Your task to perform on an android device: Is it going to rain this weekend? Image 0: 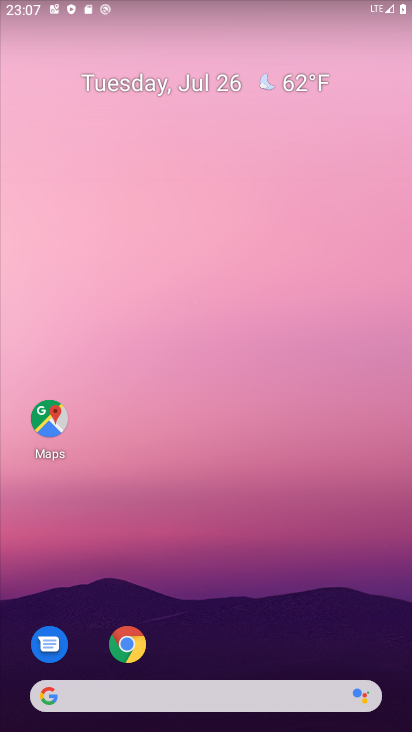
Step 0: click (213, 700)
Your task to perform on an android device: Is it going to rain this weekend? Image 1: 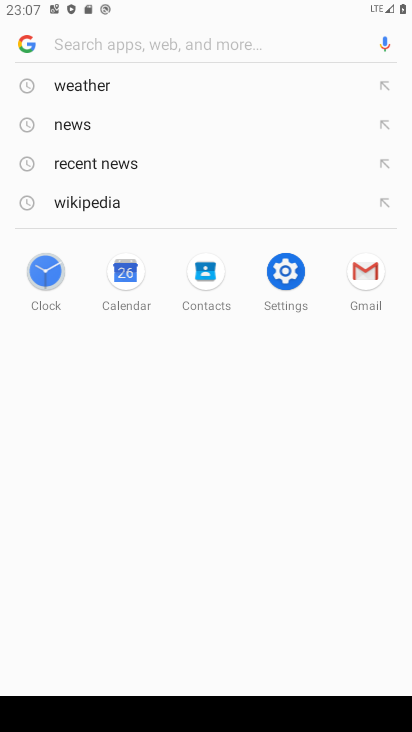
Step 1: click (76, 85)
Your task to perform on an android device: Is it going to rain this weekend? Image 2: 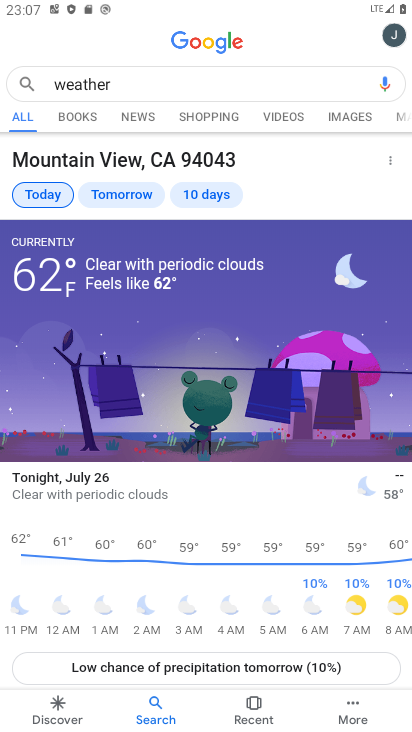
Step 2: click (227, 200)
Your task to perform on an android device: Is it going to rain this weekend? Image 3: 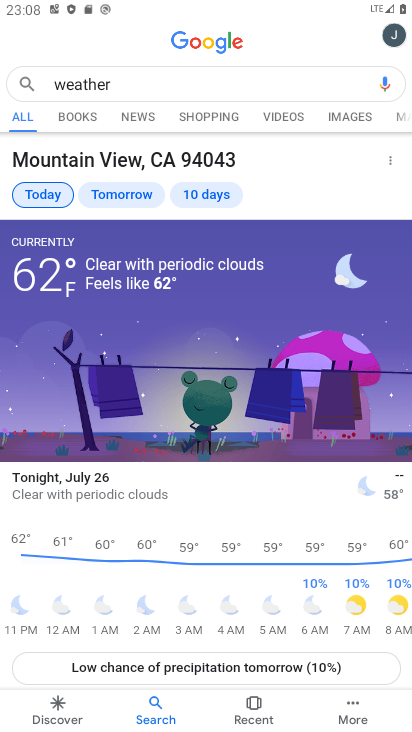
Step 3: click (210, 197)
Your task to perform on an android device: Is it going to rain this weekend? Image 4: 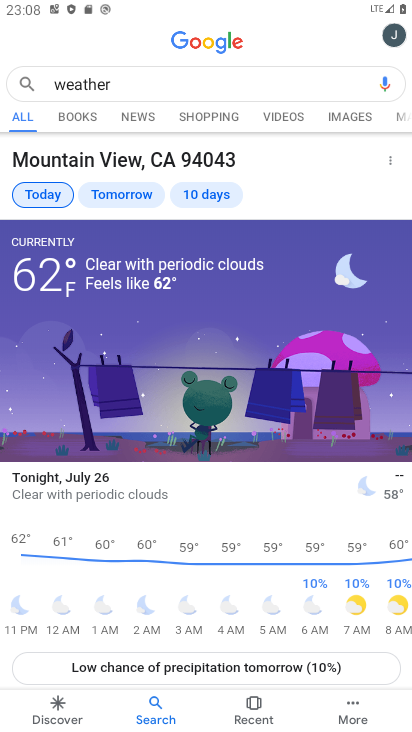
Step 4: drag from (216, 346) to (216, 223)
Your task to perform on an android device: Is it going to rain this weekend? Image 5: 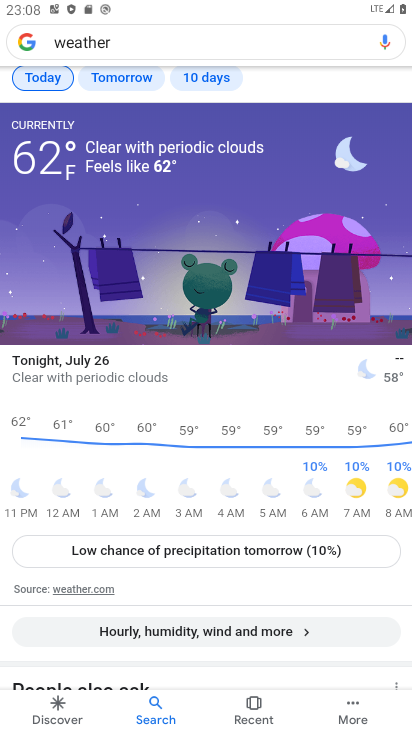
Step 5: drag from (204, 129) to (209, 301)
Your task to perform on an android device: Is it going to rain this weekend? Image 6: 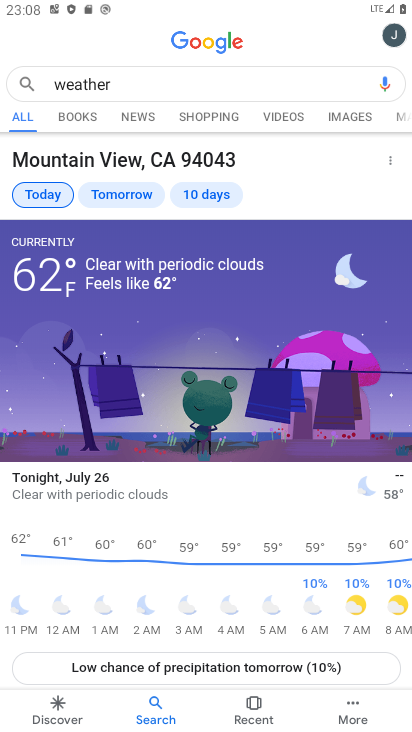
Step 6: click (202, 195)
Your task to perform on an android device: Is it going to rain this weekend? Image 7: 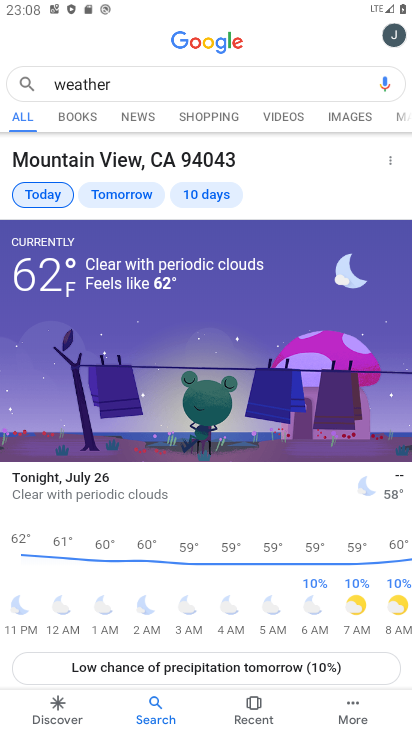
Step 7: click (194, 196)
Your task to perform on an android device: Is it going to rain this weekend? Image 8: 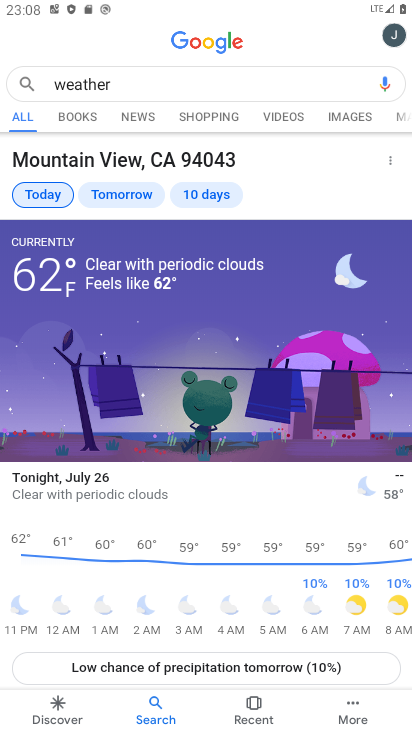
Step 8: click (194, 196)
Your task to perform on an android device: Is it going to rain this weekend? Image 9: 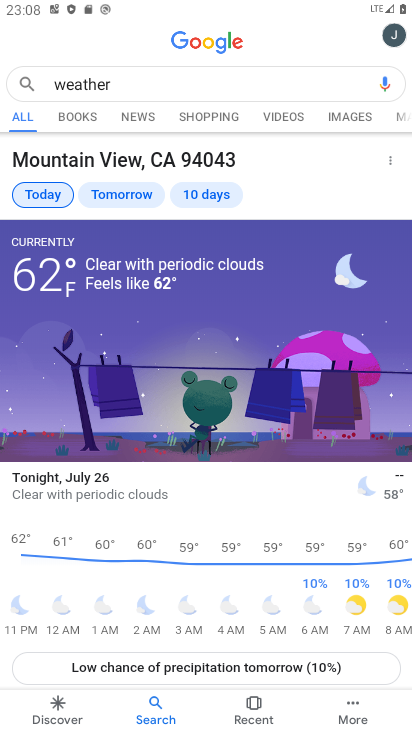
Step 9: drag from (148, 382) to (168, 80)
Your task to perform on an android device: Is it going to rain this weekend? Image 10: 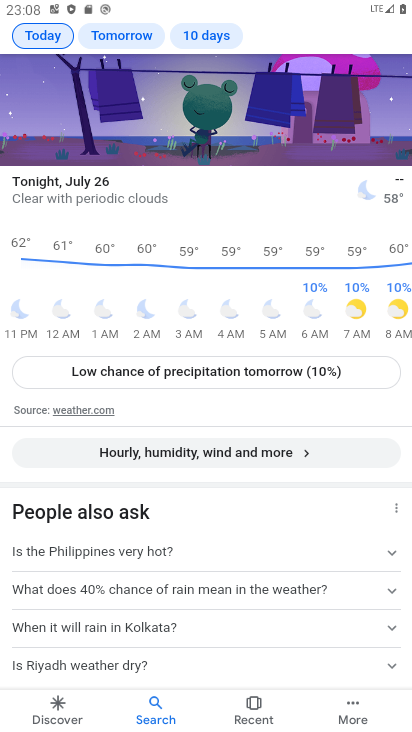
Step 10: drag from (162, 509) to (180, 197)
Your task to perform on an android device: Is it going to rain this weekend? Image 11: 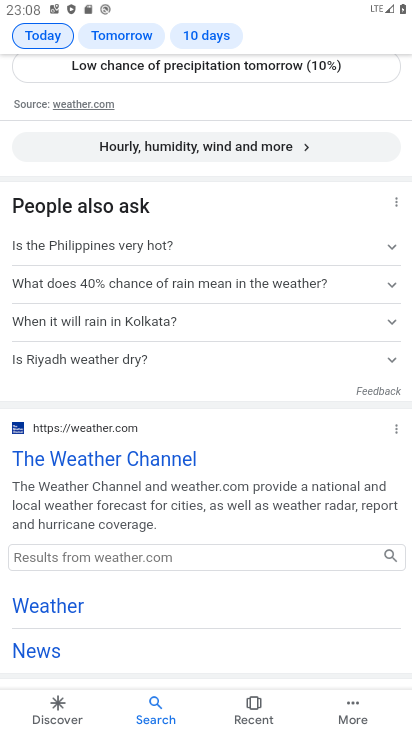
Step 11: drag from (185, 459) to (184, 253)
Your task to perform on an android device: Is it going to rain this weekend? Image 12: 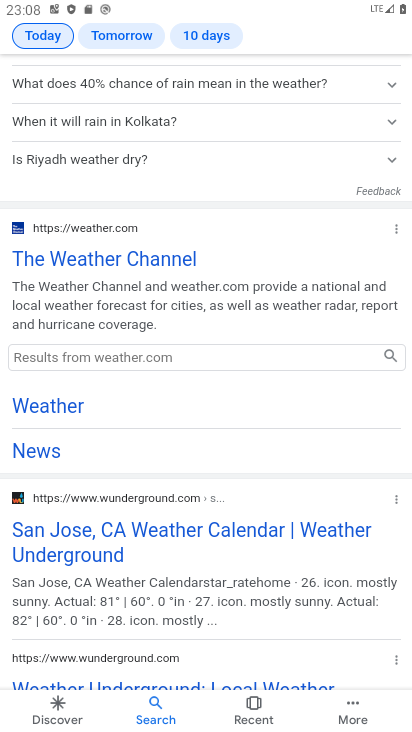
Step 12: click (60, 409)
Your task to perform on an android device: Is it going to rain this weekend? Image 13: 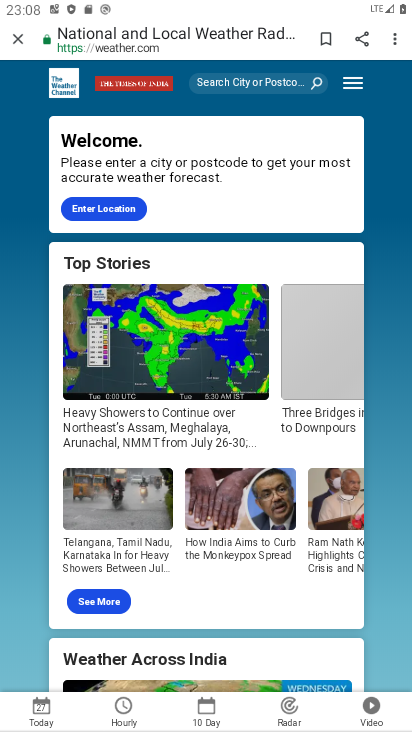
Step 13: task complete